Your task to perform on an android device: Open Chrome and go to settings Image 0: 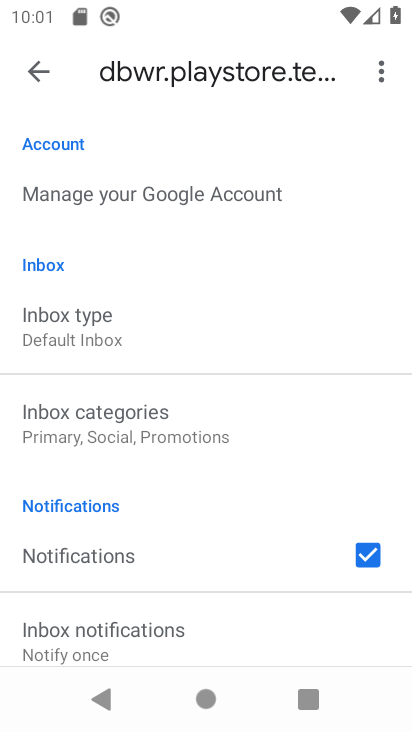
Step 0: press home button
Your task to perform on an android device: Open Chrome and go to settings Image 1: 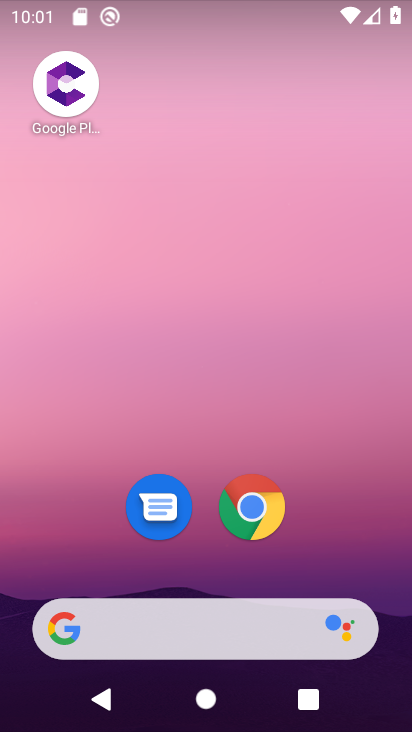
Step 1: click (279, 491)
Your task to perform on an android device: Open Chrome and go to settings Image 2: 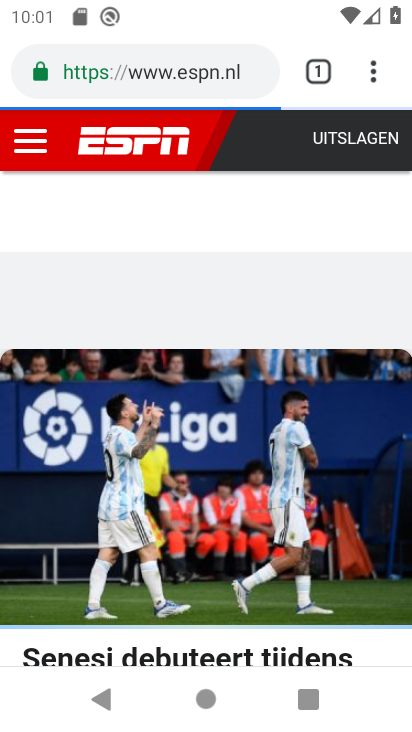
Step 2: click (375, 83)
Your task to perform on an android device: Open Chrome and go to settings Image 3: 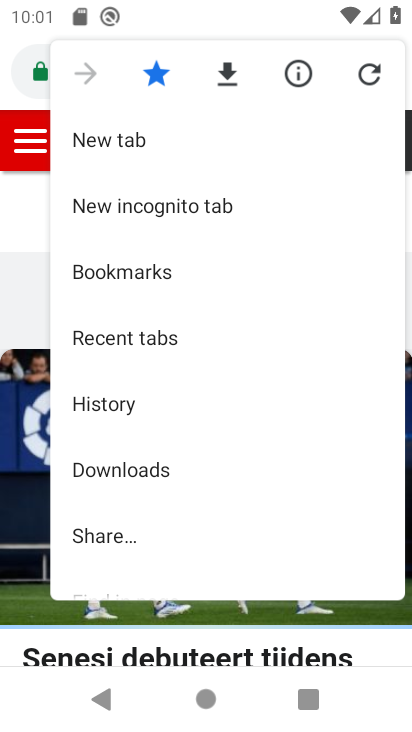
Step 3: drag from (171, 550) to (219, 62)
Your task to perform on an android device: Open Chrome and go to settings Image 4: 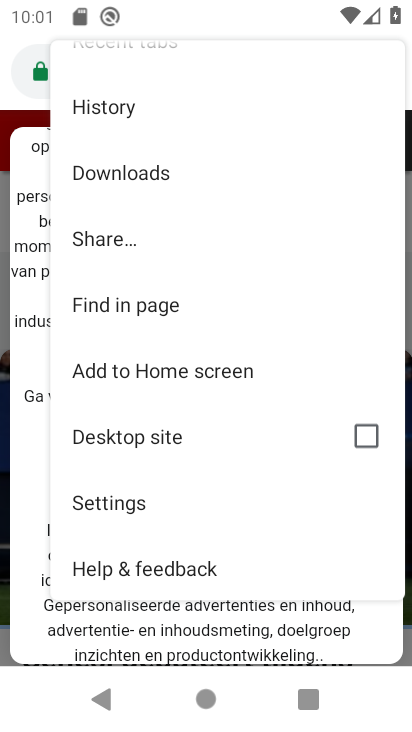
Step 4: click (124, 512)
Your task to perform on an android device: Open Chrome and go to settings Image 5: 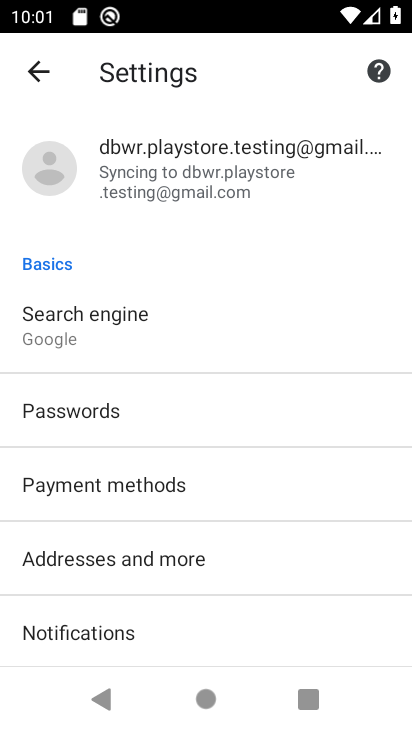
Step 5: task complete